Your task to perform on an android device: Open calendar and show me the third week of next month Image 0: 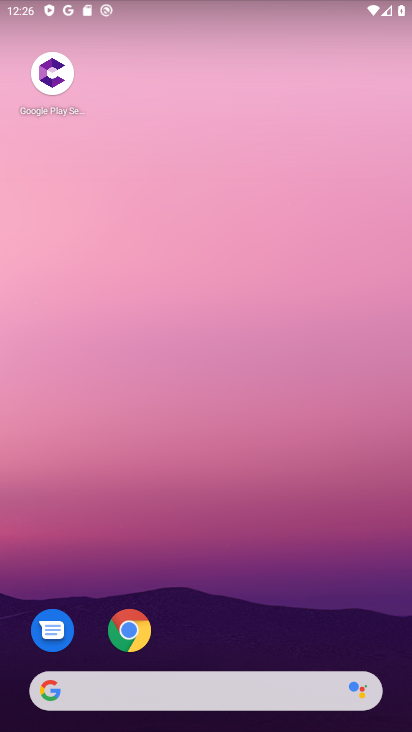
Step 0: drag from (367, 627) to (284, 37)
Your task to perform on an android device: Open calendar and show me the third week of next month Image 1: 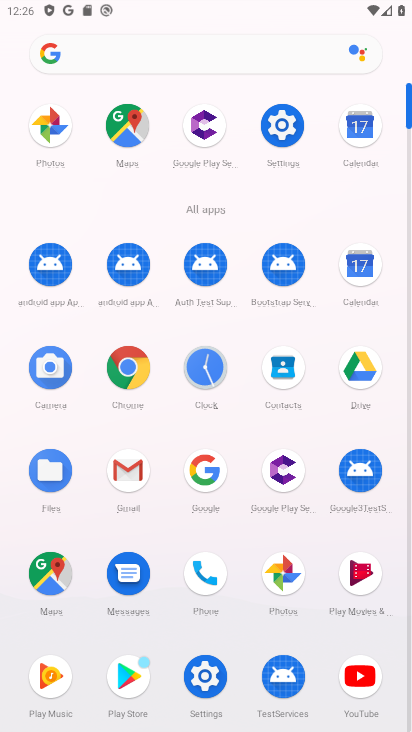
Step 1: click (349, 271)
Your task to perform on an android device: Open calendar and show me the third week of next month Image 2: 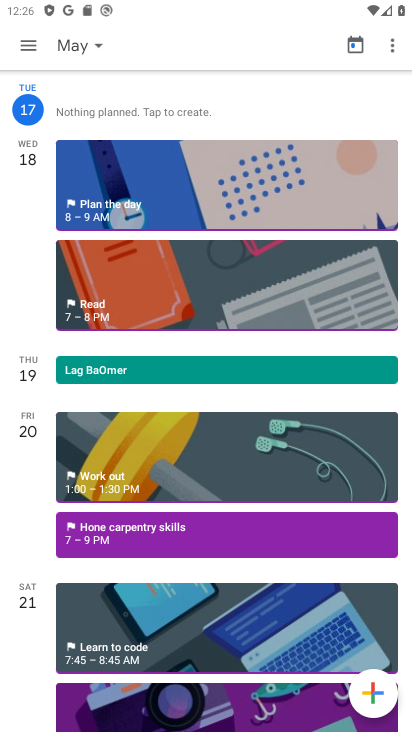
Step 2: click (96, 50)
Your task to perform on an android device: Open calendar and show me the third week of next month Image 3: 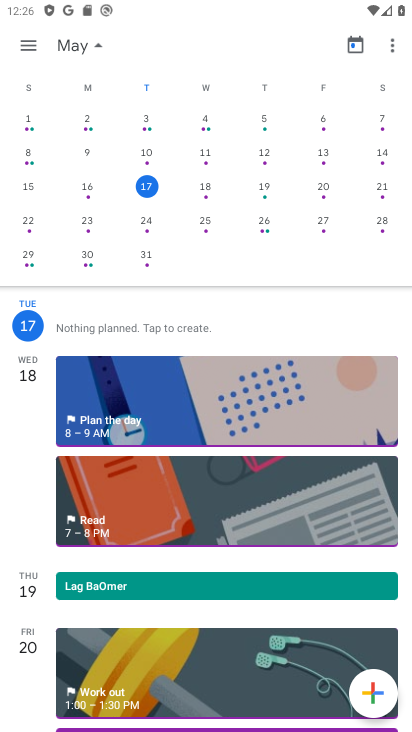
Step 3: drag from (381, 258) to (15, 218)
Your task to perform on an android device: Open calendar and show me the third week of next month Image 4: 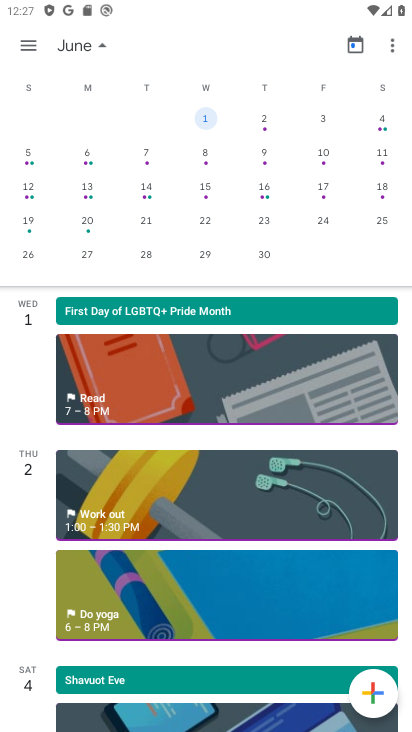
Step 4: click (267, 201)
Your task to perform on an android device: Open calendar and show me the third week of next month Image 5: 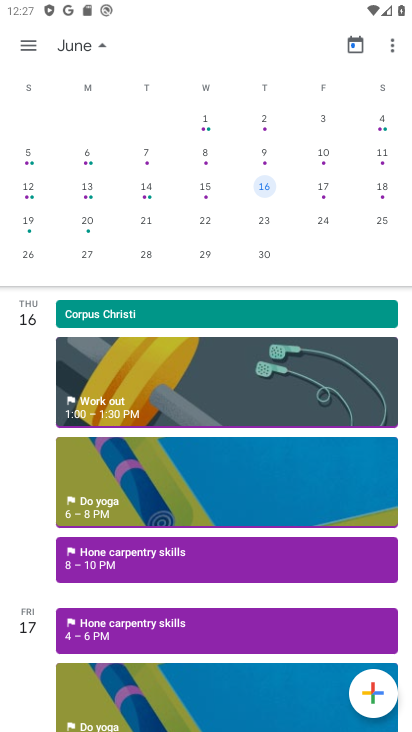
Step 5: task complete